Your task to perform on an android device: turn on the 24-hour format for clock Image 0: 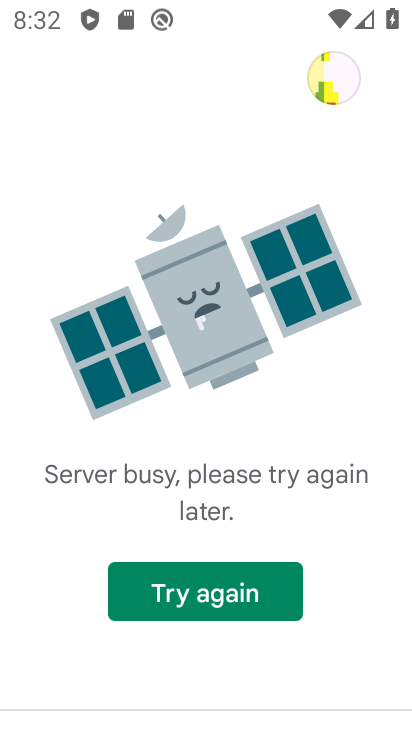
Step 0: press back button
Your task to perform on an android device: turn on the 24-hour format for clock Image 1: 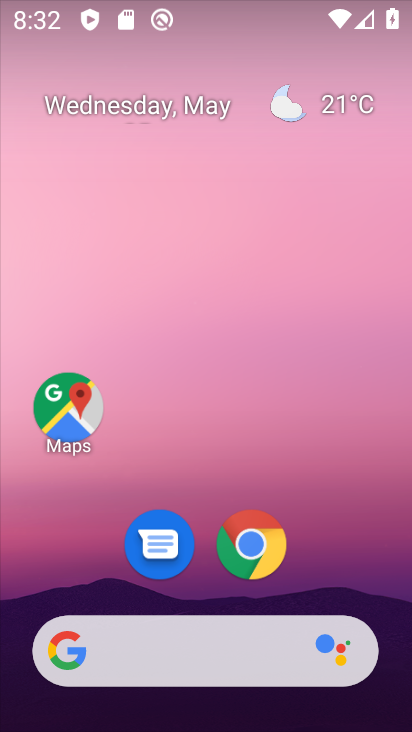
Step 1: drag from (344, 568) to (242, 33)
Your task to perform on an android device: turn on the 24-hour format for clock Image 2: 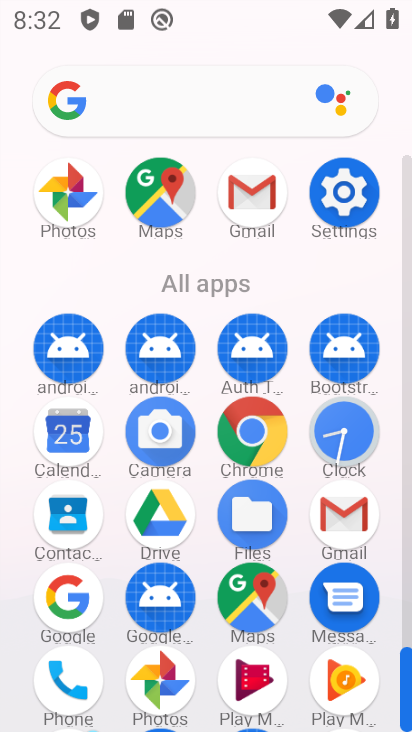
Step 2: drag from (23, 608) to (16, 270)
Your task to perform on an android device: turn on the 24-hour format for clock Image 3: 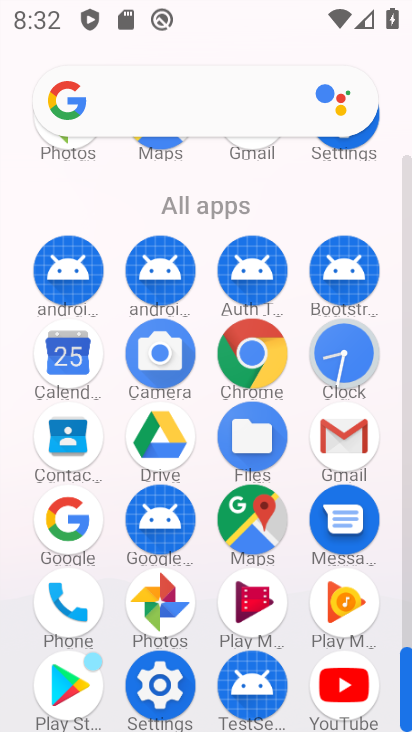
Step 3: click (348, 349)
Your task to perform on an android device: turn on the 24-hour format for clock Image 4: 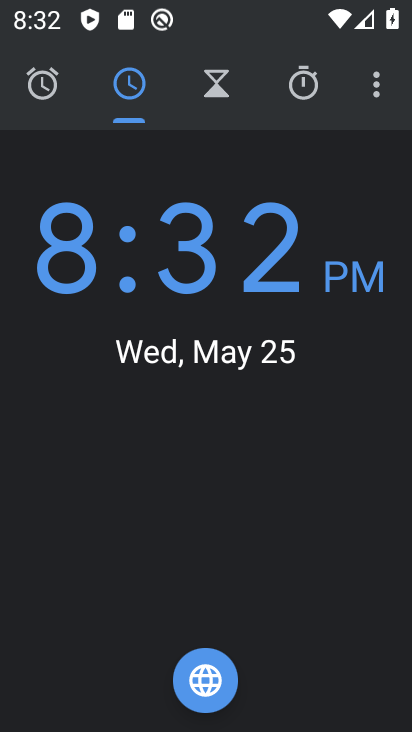
Step 4: drag from (375, 89) to (195, 156)
Your task to perform on an android device: turn on the 24-hour format for clock Image 5: 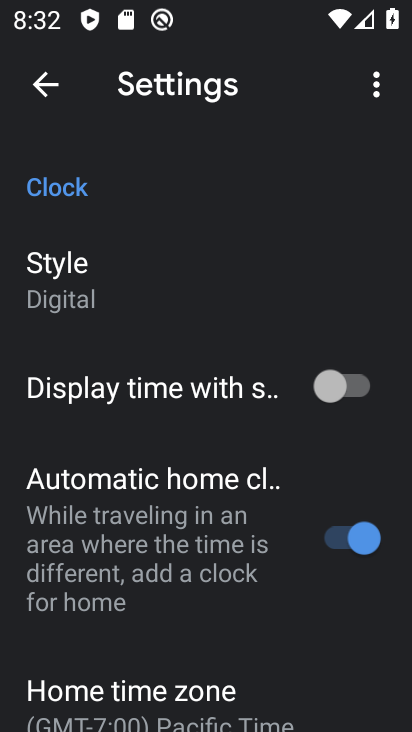
Step 5: drag from (175, 609) to (170, 226)
Your task to perform on an android device: turn on the 24-hour format for clock Image 6: 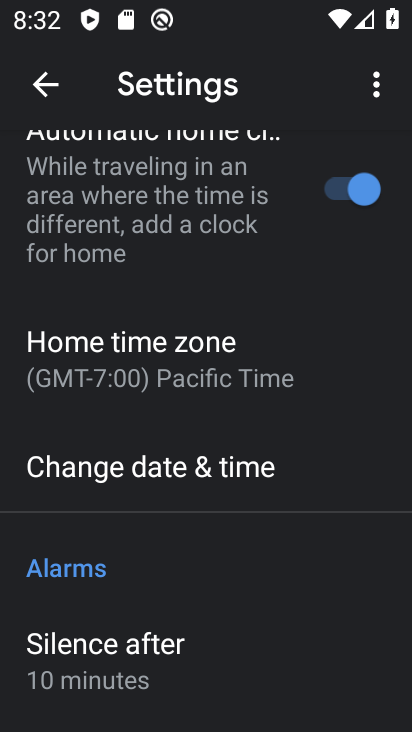
Step 6: click (166, 476)
Your task to perform on an android device: turn on the 24-hour format for clock Image 7: 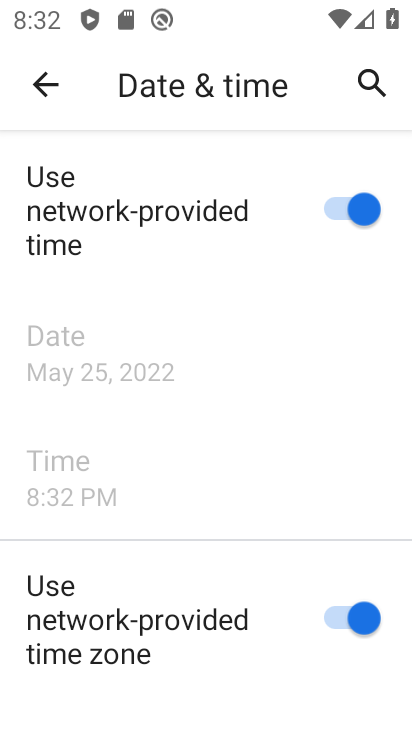
Step 7: drag from (183, 632) to (176, 175)
Your task to perform on an android device: turn on the 24-hour format for clock Image 8: 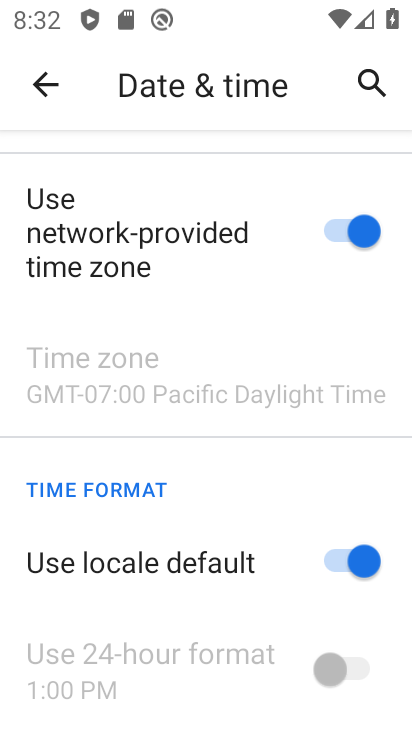
Step 8: click (356, 544)
Your task to perform on an android device: turn on the 24-hour format for clock Image 9: 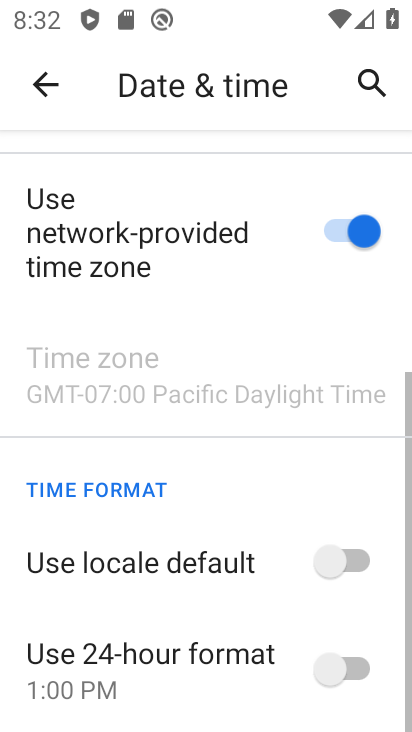
Step 9: click (334, 666)
Your task to perform on an android device: turn on the 24-hour format for clock Image 10: 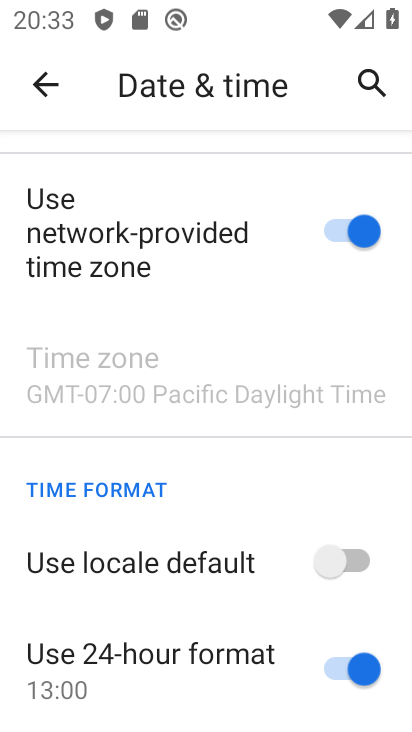
Step 10: task complete